Your task to perform on an android device: find photos in the google photos app Image 0: 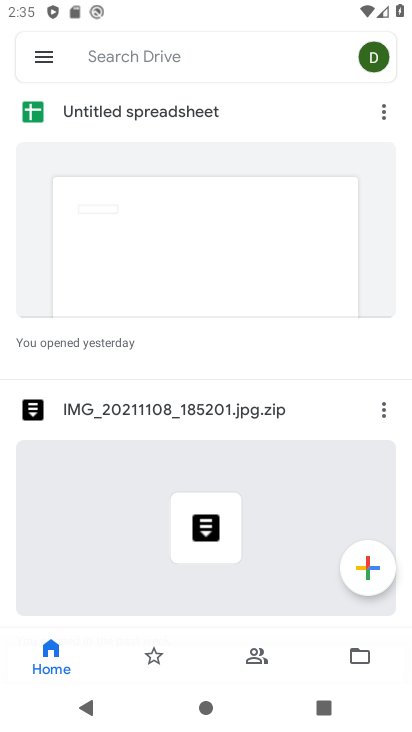
Step 0: press home button
Your task to perform on an android device: find photos in the google photos app Image 1: 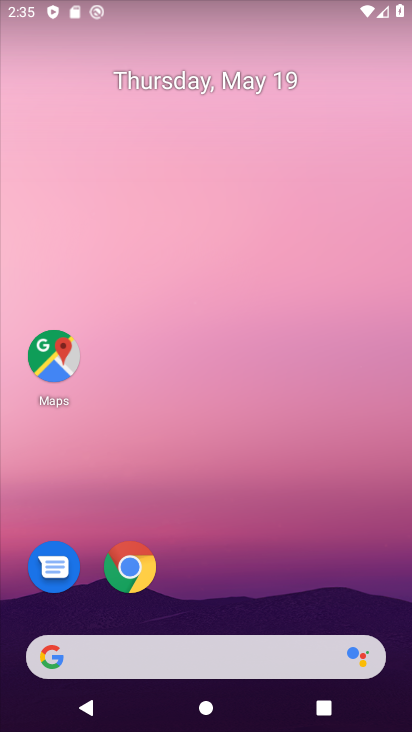
Step 1: drag from (217, 627) to (343, 35)
Your task to perform on an android device: find photos in the google photos app Image 2: 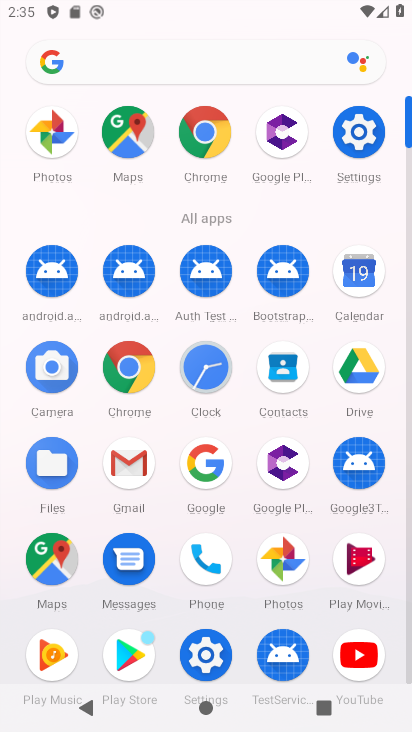
Step 2: click (290, 559)
Your task to perform on an android device: find photos in the google photos app Image 3: 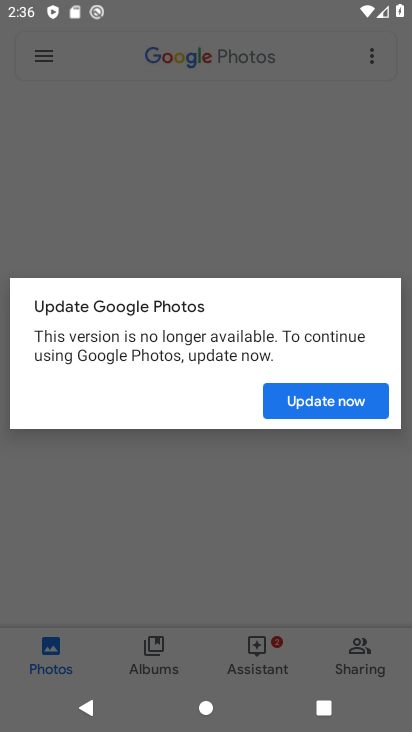
Step 3: click (316, 406)
Your task to perform on an android device: find photos in the google photos app Image 4: 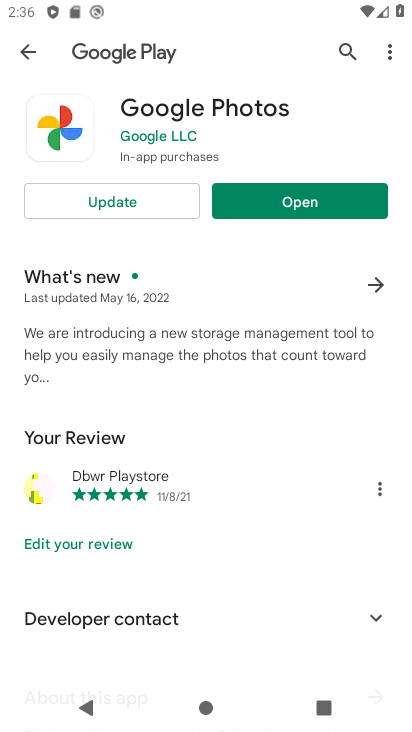
Step 4: click (285, 185)
Your task to perform on an android device: find photos in the google photos app Image 5: 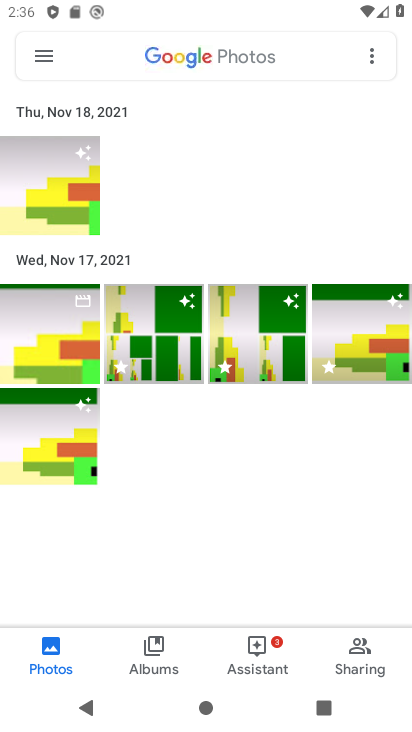
Step 5: task complete